Your task to perform on an android device: Open Youtube and go to "Your channel" Image 0: 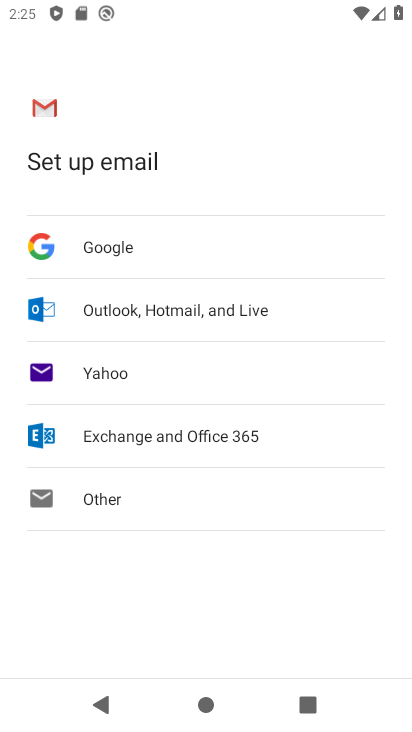
Step 0: press back button
Your task to perform on an android device: Open Youtube and go to "Your channel" Image 1: 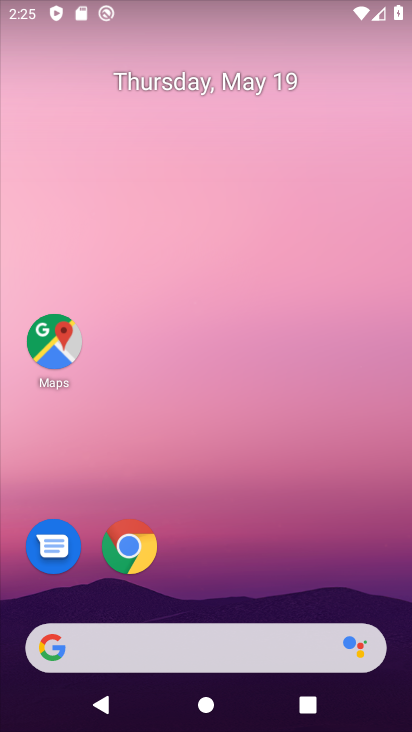
Step 1: drag from (238, 565) to (159, 1)
Your task to perform on an android device: Open Youtube and go to "Your channel" Image 2: 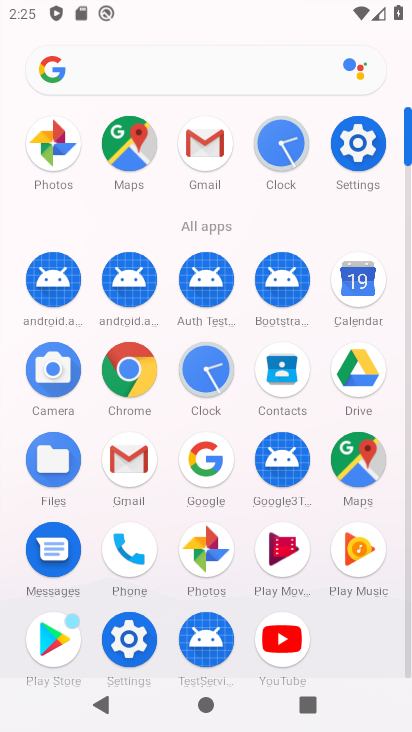
Step 2: click (283, 639)
Your task to perform on an android device: Open Youtube and go to "Your channel" Image 3: 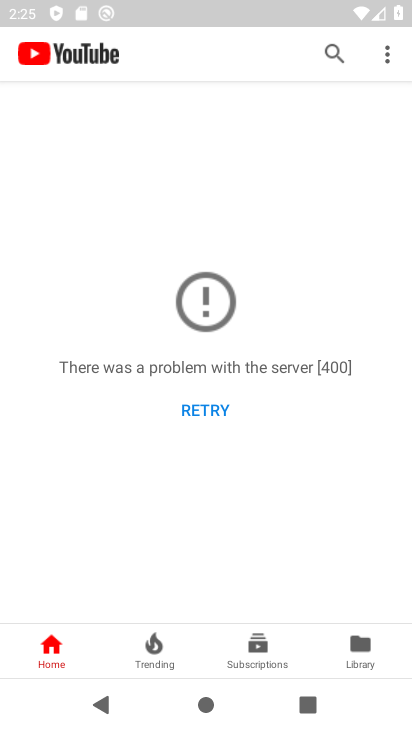
Step 3: click (205, 406)
Your task to perform on an android device: Open Youtube and go to "Your channel" Image 4: 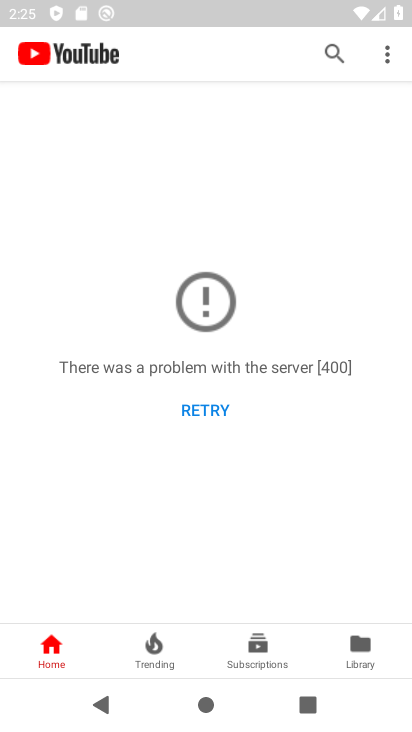
Step 4: click (201, 414)
Your task to perform on an android device: Open Youtube and go to "Your channel" Image 5: 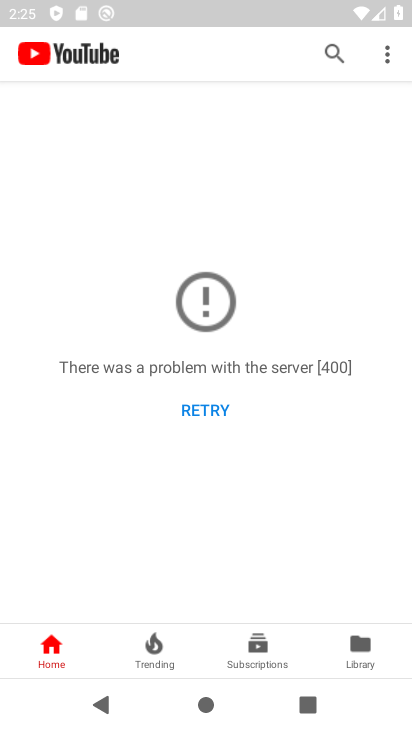
Step 5: click (195, 409)
Your task to perform on an android device: Open Youtube and go to "Your channel" Image 6: 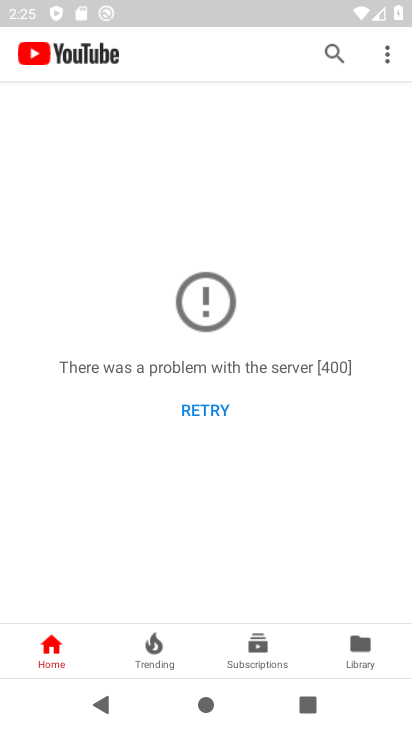
Step 6: click (195, 409)
Your task to perform on an android device: Open Youtube and go to "Your channel" Image 7: 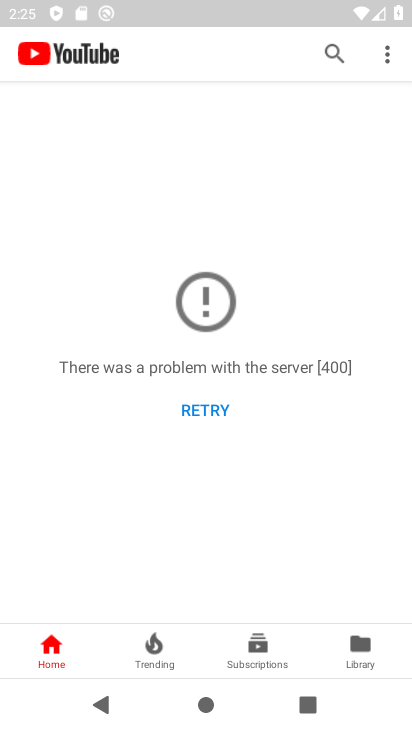
Step 7: click (190, 411)
Your task to perform on an android device: Open Youtube and go to "Your channel" Image 8: 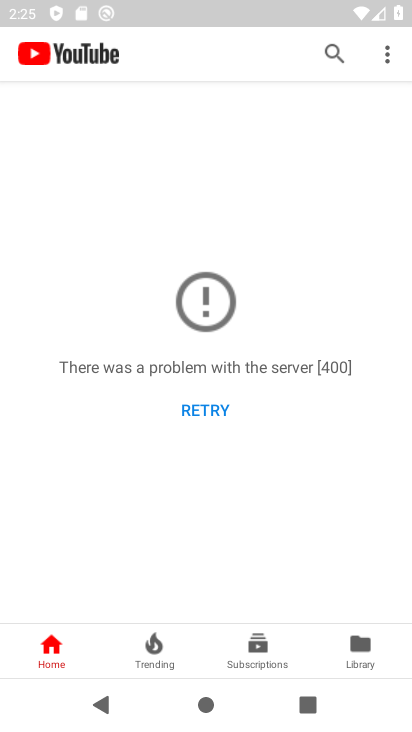
Step 8: click (191, 413)
Your task to perform on an android device: Open Youtube and go to "Your channel" Image 9: 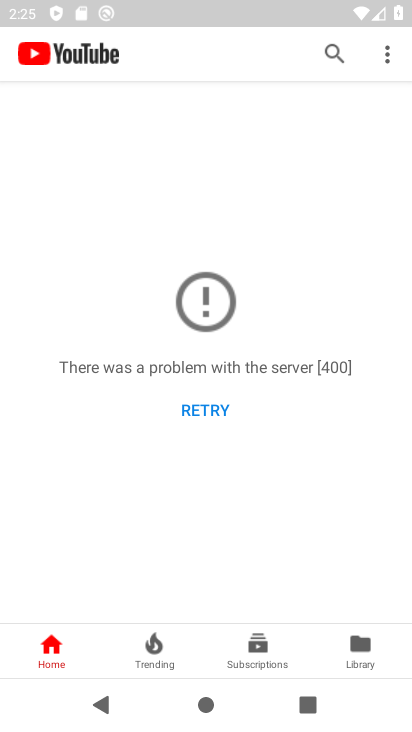
Step 9: click (220, 423)
Your task to perform on an android device: Open Youtube and go to "Your channel" Image 10: 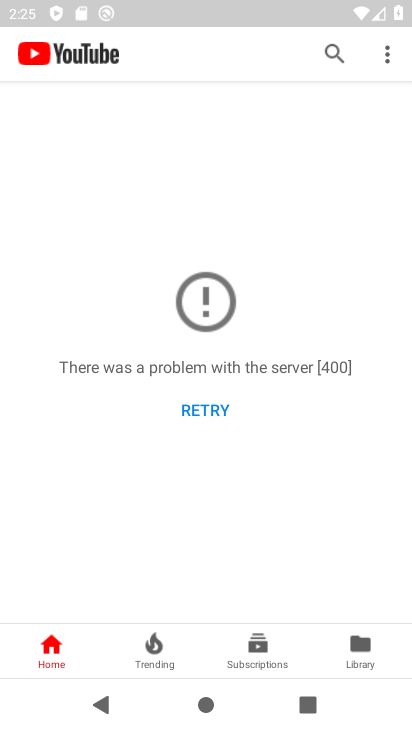
Step 10: click (212, 411)
Your task to perform on an android device: Open Youtube and go to "Your channel" Image 11: 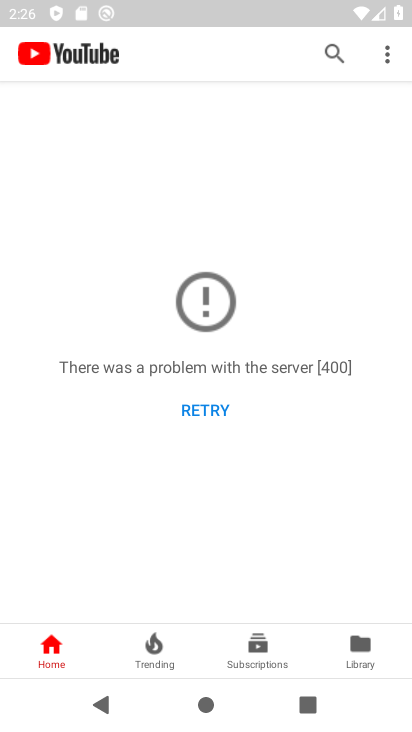
Step 11: task complete